Your task to perform on an android device: see sites visited before in the chrome app Image 0: 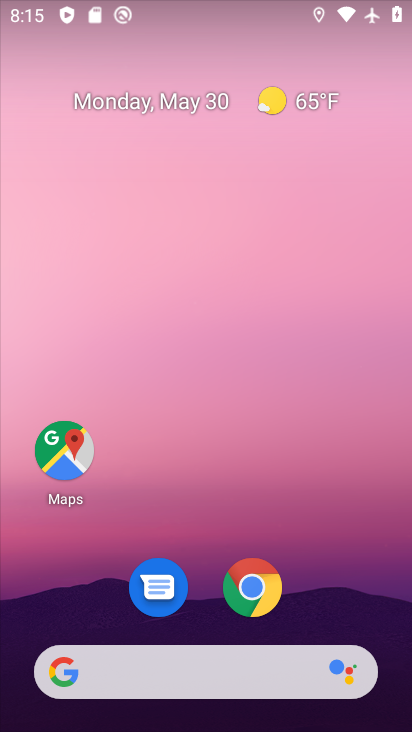
Step 0: click (253, 594)
Your task to perform on an android device: see sites visited before in the chrome app Image 1: 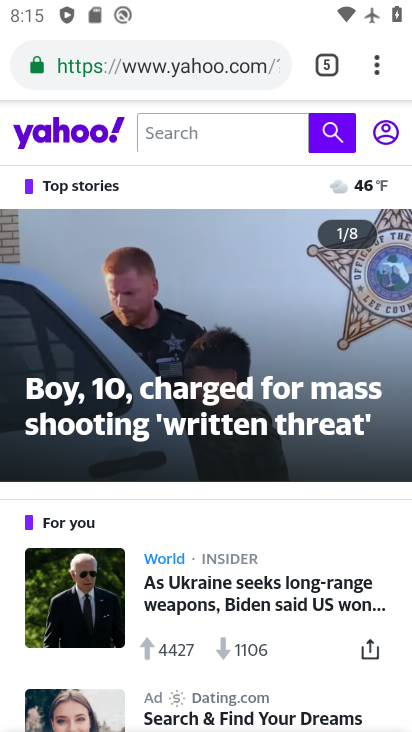
Step 1: task complete